Your task to perform on an android device: Show me the alarms in the clock app Image 0: 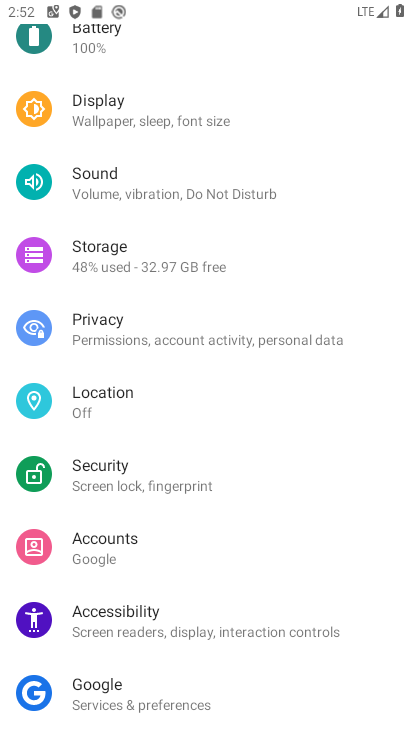
Step 0: press home button
Your task to perform on an android device: Show me the alarms in the clock app Image 1: 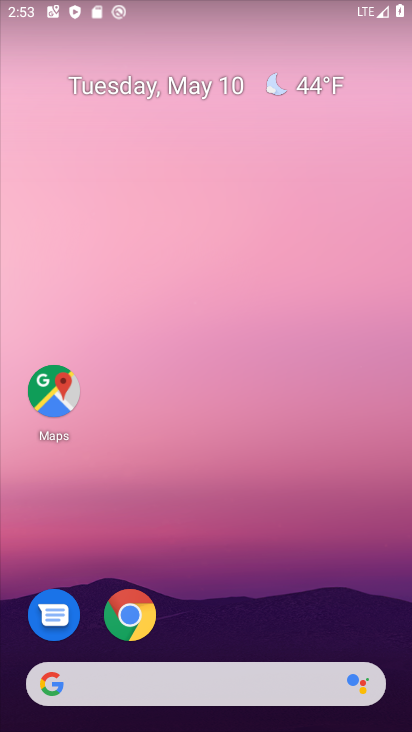
Step 1: drag from (261, 601) to (279, 3)
Your task to perform on an android device: Show me the alarms in the clock app Image 2: 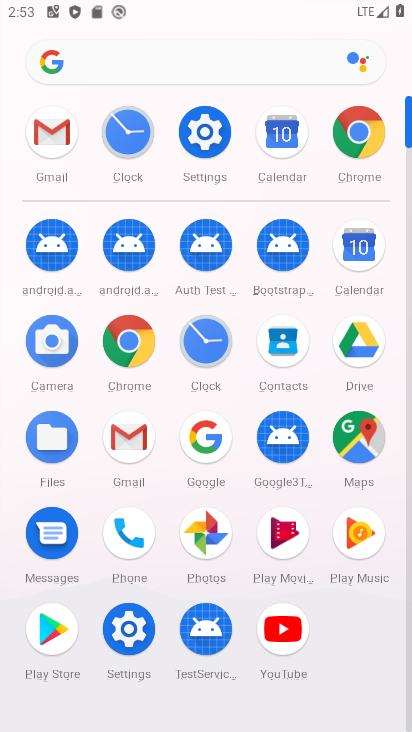
Step 2: click (150, 129)
Your task to perform on an android device: Show me the alarms in the clock app Image 3: 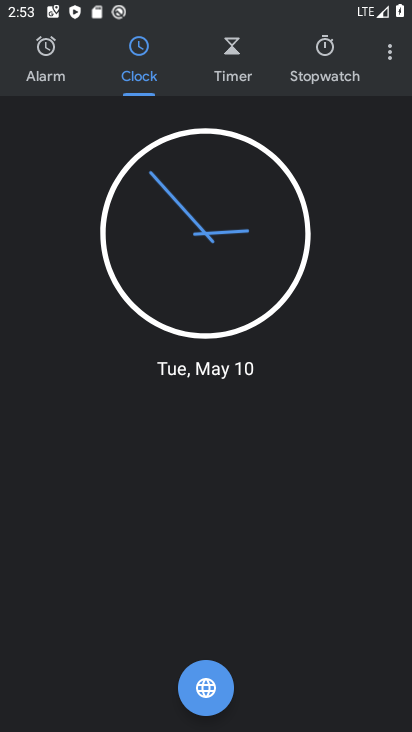
Step 3: click (62, 74)
Your task to perform on an android device: Show me the alarms in the clock app Image 4: 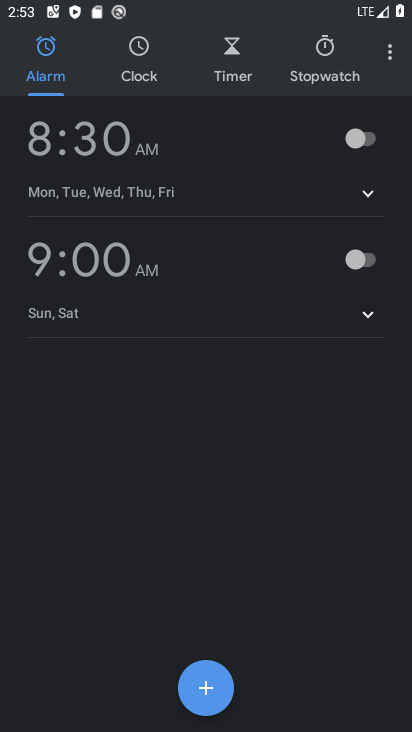
Step 4: task complete